Your task to perform on an android device: change keyboard looks Image 0: 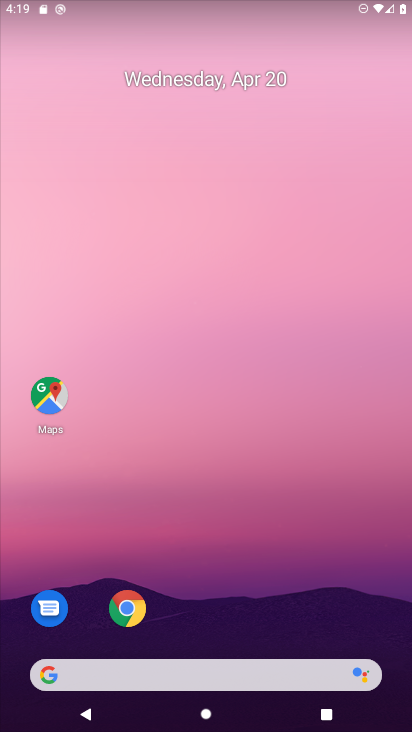
Step 0: drag from (296, 571) to (286, 87)
Your task to perform on an android device: change keyboard looks Image 1: 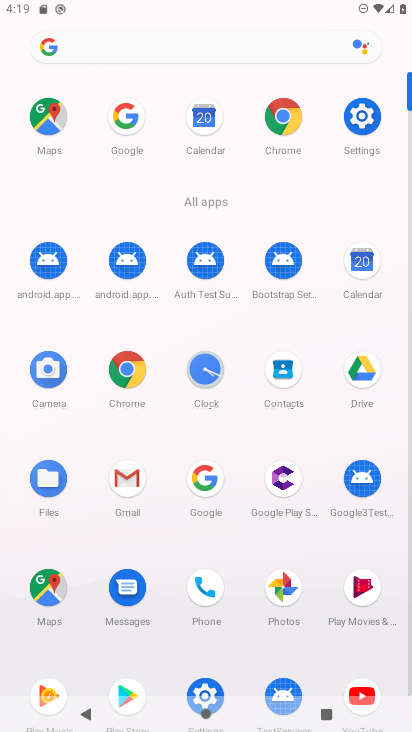
Step 1: click (354, 126)
Your task to perform on an android device: change keyboard looks Image 2: 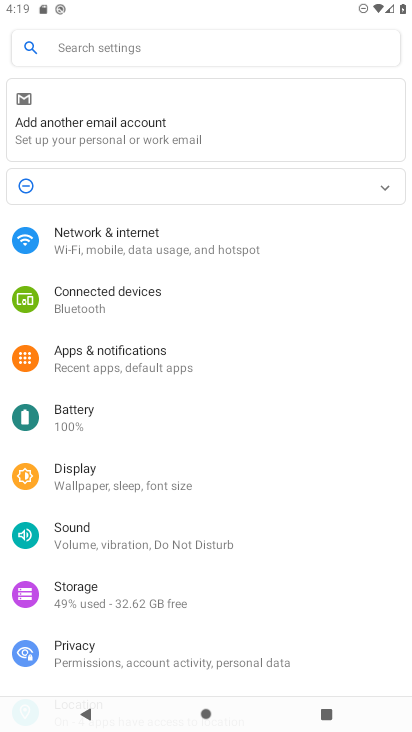
Step 2: drag from (188, 640) to (196, 44)
Your task to perform on an android device: change keyboard looks Image 3: 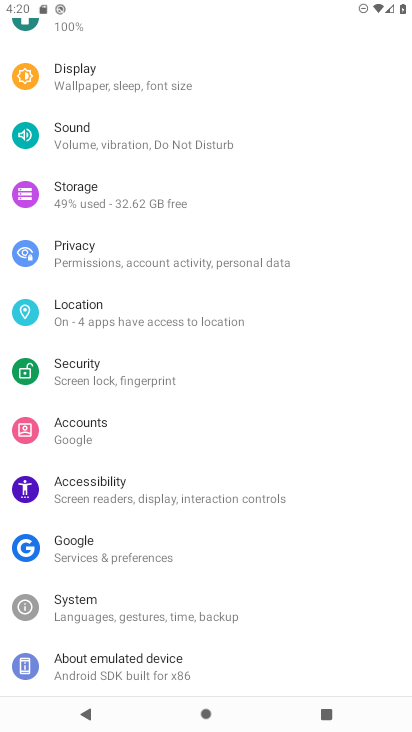
Step 3: click (221, 684)
Your task to perform on an android device: change keyboard looks Image 4: 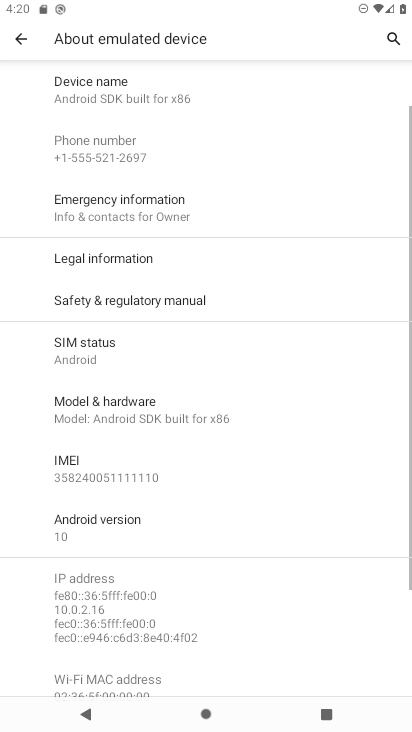
Step 4: press back button
Your task to perform on an android device: change keyboard looks Image 5: 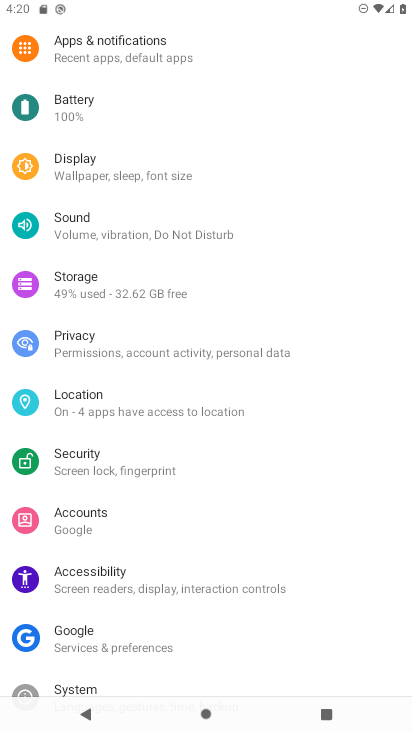
Step 5: click (211, 691)
Your task to perform on an android device: change keyboard looks Image 6: 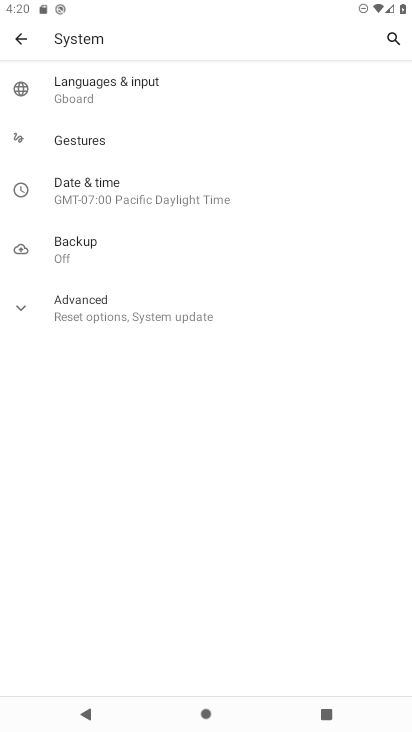
Step 6: click (249, 79)
Your task to perform on an android device: change keyboard looks Image 7: 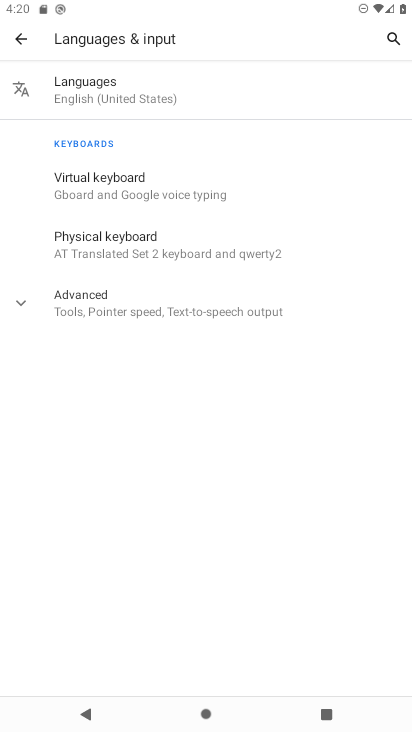
Step 7: click (227, 185)
Your task to perform on an android device: change keyboard looks Image 8: 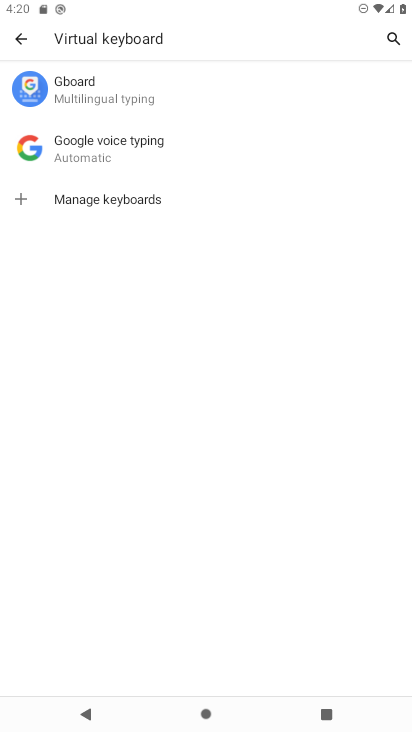
Step 8: click (187, 77)
Your task to perform on an android device: change keyboard looks Image 9: 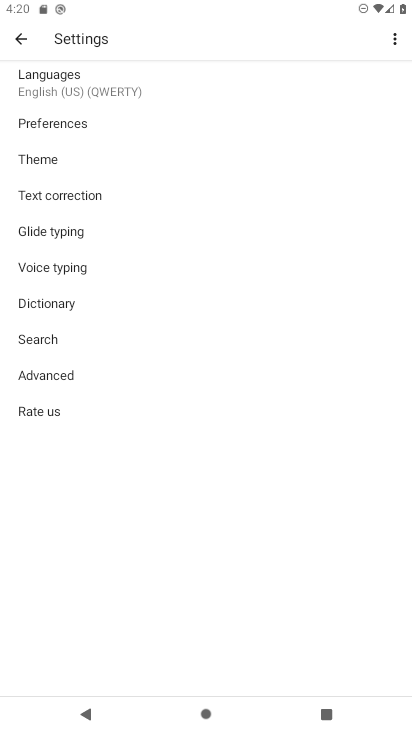
Step 9: click (109, 165)
Your task to perform on an android device: change keyboard looks Image 10: 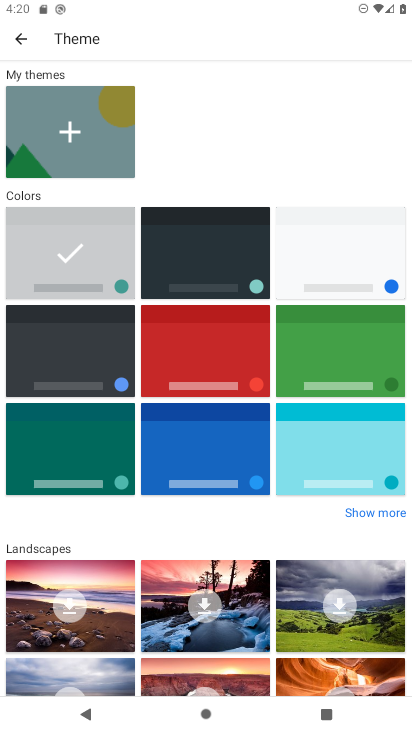
Step 10: click (160, 242)
Your task to perform on an android device: change keyboard looks Image 11: 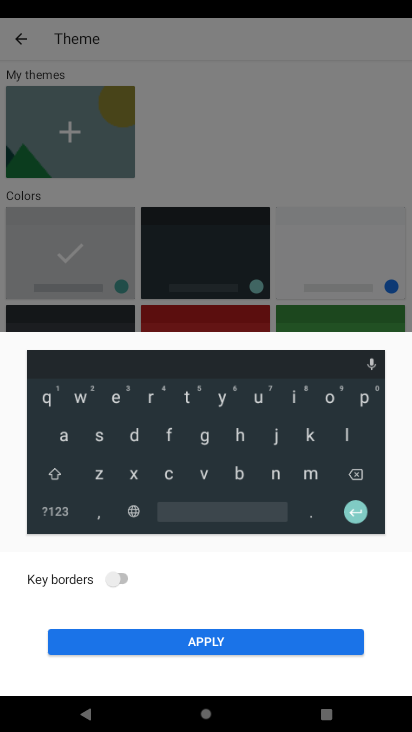
Step 11: click (320, 638)
Your task to perform on an android device: change keyboard looks Image 12: 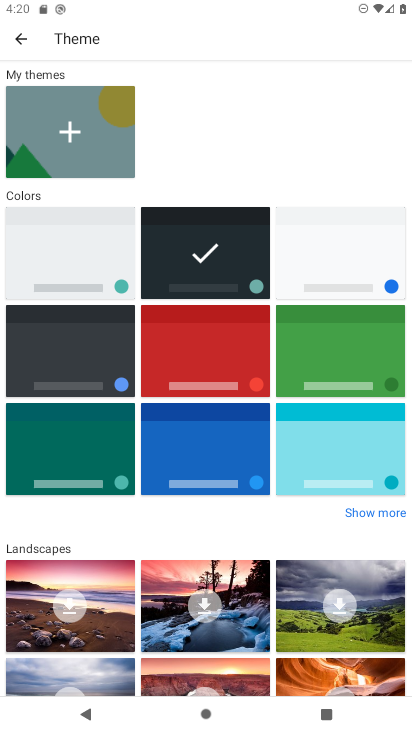
Step 12: task complete